Your task to perform on an android device: Open sound settings Image 0: 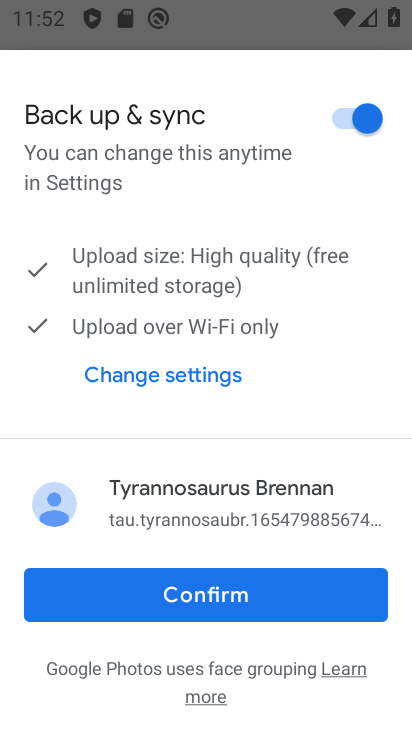
Step 0: press home button
Your task to perform on an android device: Open sound settings Image 1: 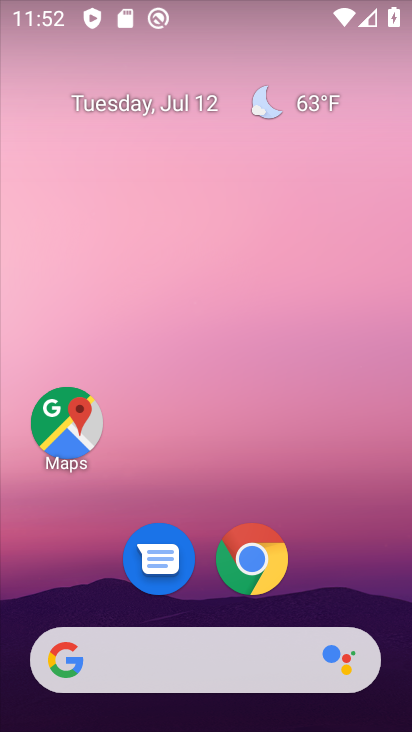
Step 1: drag from (362, 574) to (325, 63)
Your task to perform on an android device: Open sound settings Image 2: 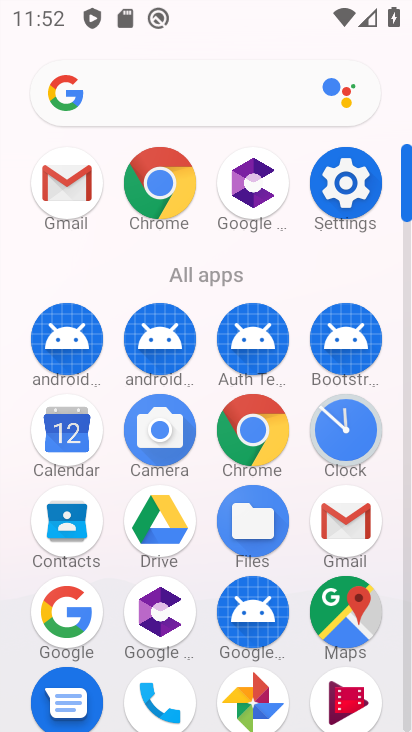
Step 2: drag from (387, 511) to (384, 218)
Your task to perform on an android device: Open sound settings Image 3: 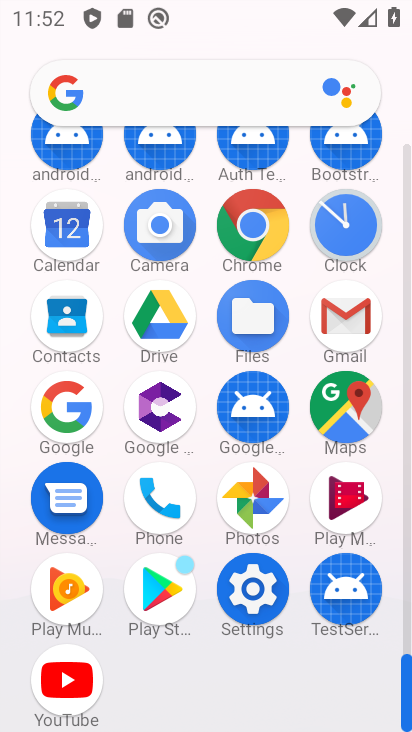
Step 3: click (253, 574)
Your task to perform on an android device: Open sound settings Image 4: 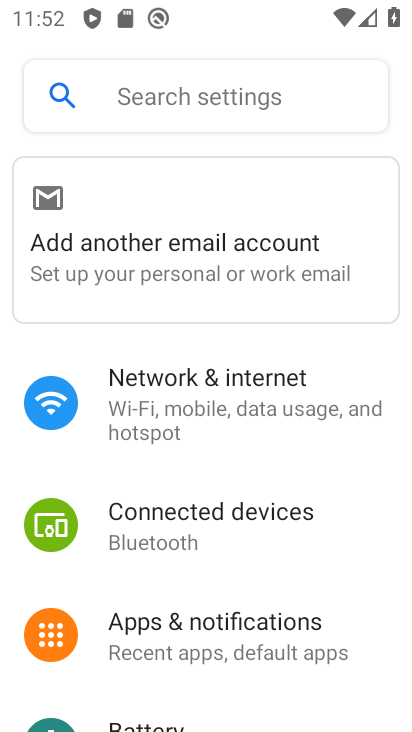
Step 4: drag from (362, 573) to (360, 276)
Your task to perform on an android device: Open sound settings Image 5: 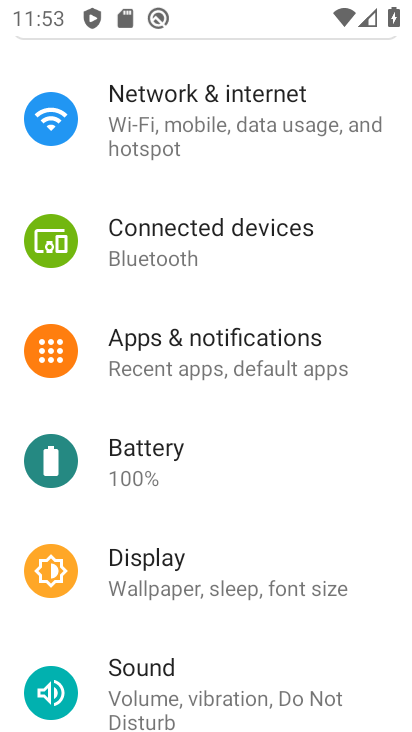
Step 5: drag from (332, 469) to (338, 290)
Your task to perform on an android device: Open sound settings Image 6: 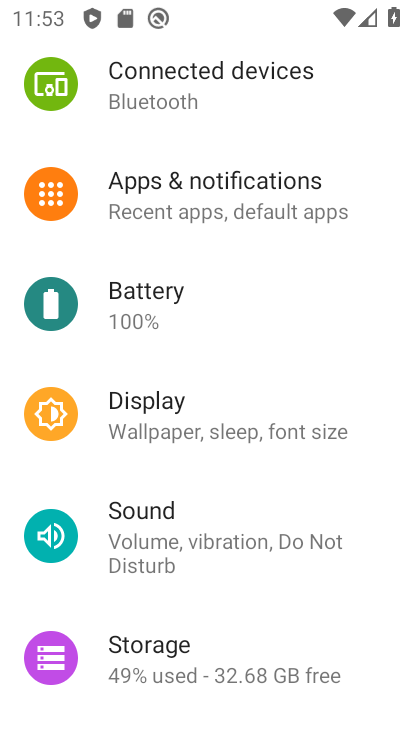
Step 6: drag from (358, 561) to (357, 363)
Your task to perform on an android device: Open sound settings Image 7: 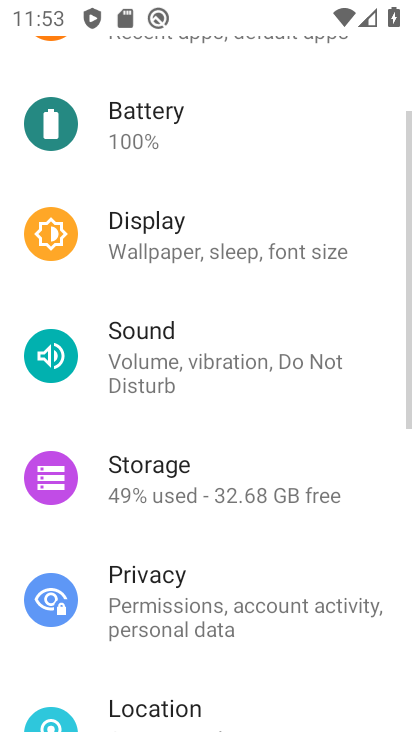
Step 7: drag from (359, 562) to (364, 359)
Your task to perform on an android device: Open sound settings Image 8: 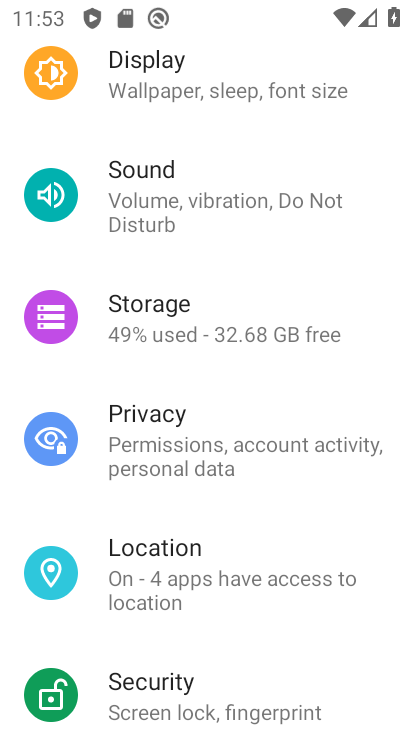
Step 8: drag from (352, 490) to (383, 307)
Your task to perform on an android device: Open sound settings Image 9: 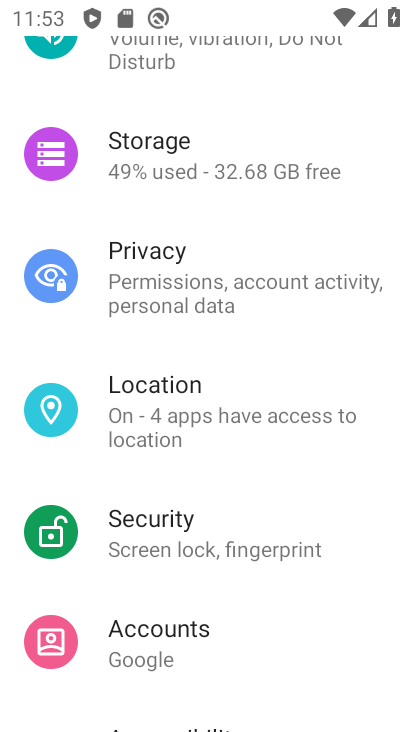
Step 9: drag from (341, 512) to (346, 323)
Your task to perform on an android device: Open sound settings Image 10: 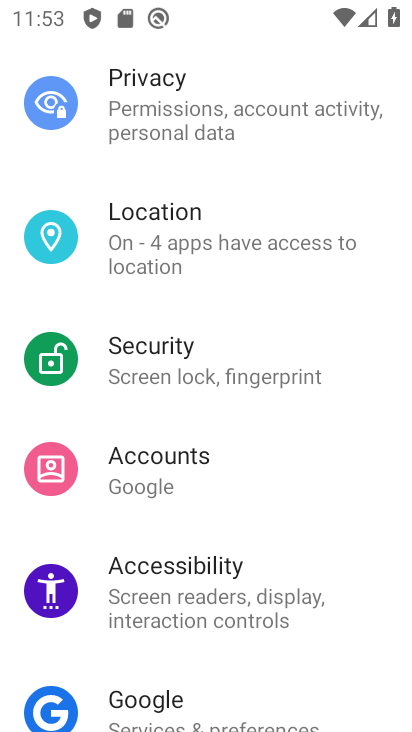
Step 10: drag from (347, 495) to (346, 312)
Your task to perform on an android device: Open sound settings Image 11: 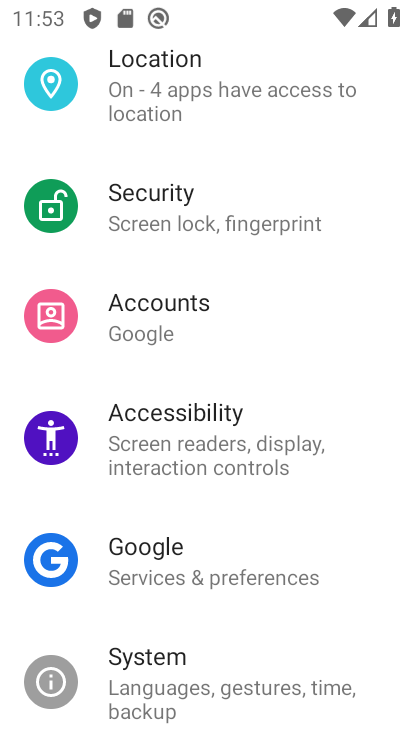
Step 11: drag from (353, 519) to (354, 326)
Your task to perform on an android device: Open sound settings Image 12: 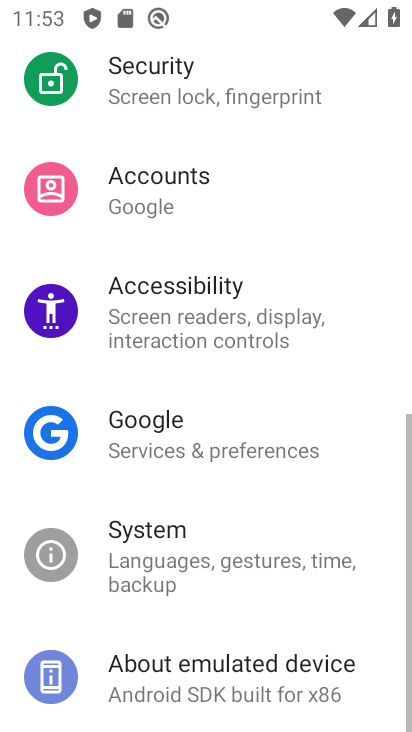
Step 12: drag from (351, 278) to (349, 442)
Your task to perform on an android device: Open sound settings Image 13: 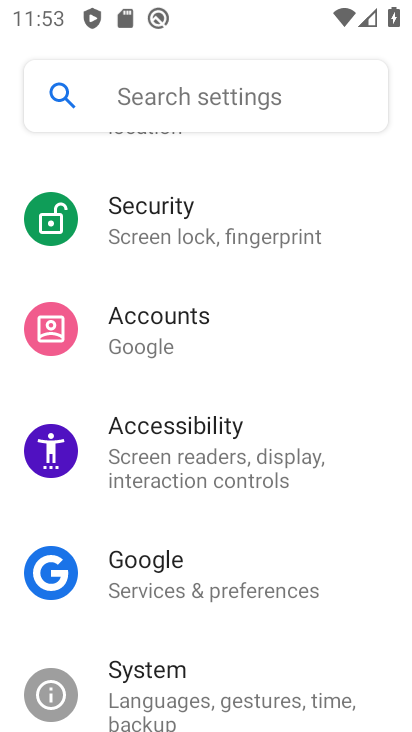
Step 13: drag from (349, 281) to (346, 419)
Your task to perform on an android device: Open sound settings Image 14: 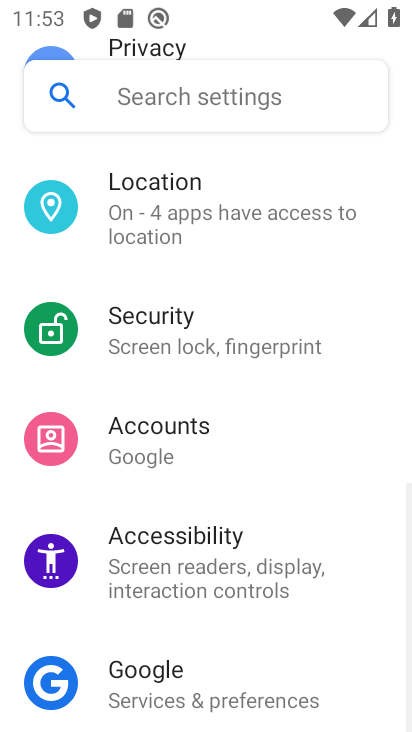
Step 14: drag from (356, 280) to (346, 422)
Your task to perform on an android device: Open sound settings Image 15: 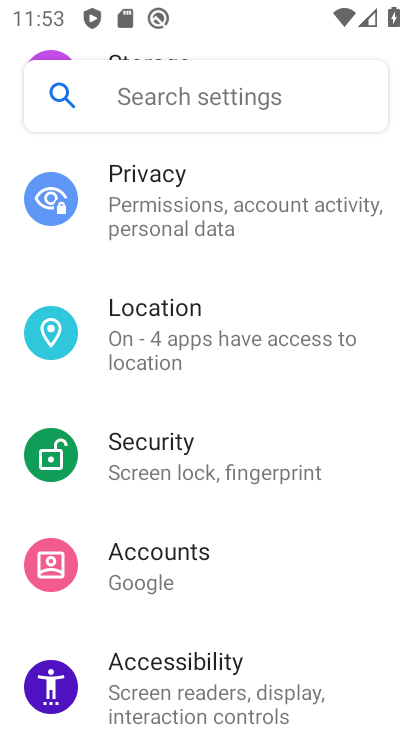
Step 15: drag from (363, 252) to (350, 402)
Your task to perform on an android device: Open sound settings Image 16: 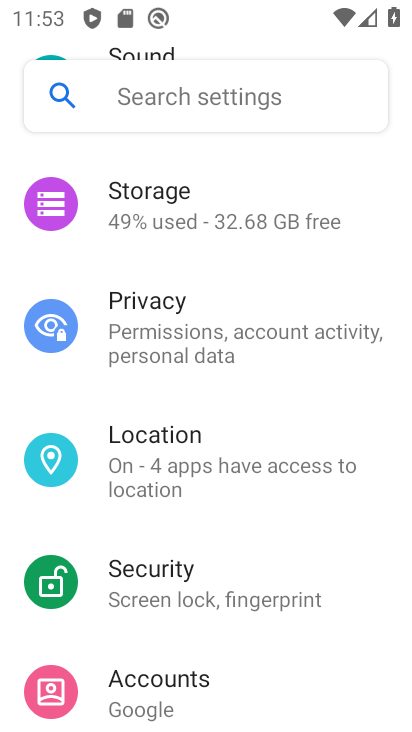
Step 16: drag from (370, 186) to (380, 369)
Your task to perform on an android device: Open sound settings Image 17: 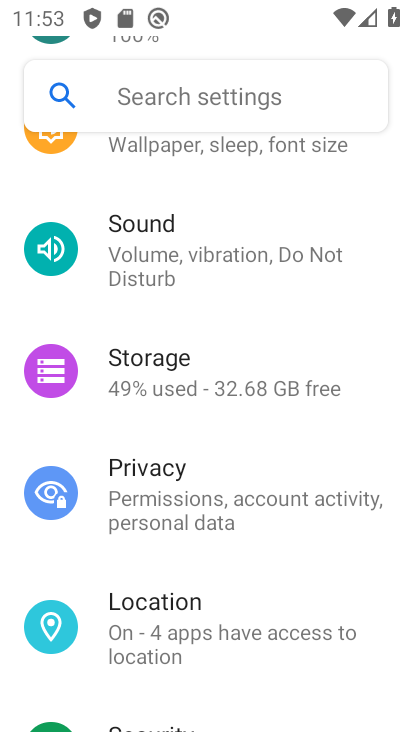
Step 17: drag from (369, 196) to (351, 426)
Your task to perform on an android device: Open sound settings Image 18: 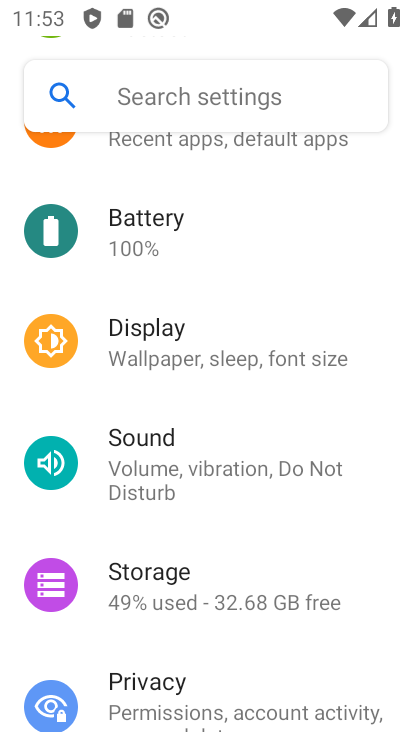
Step 18: click (312, 476)
Your task to perform on an android device: Open sound settings Image 19: 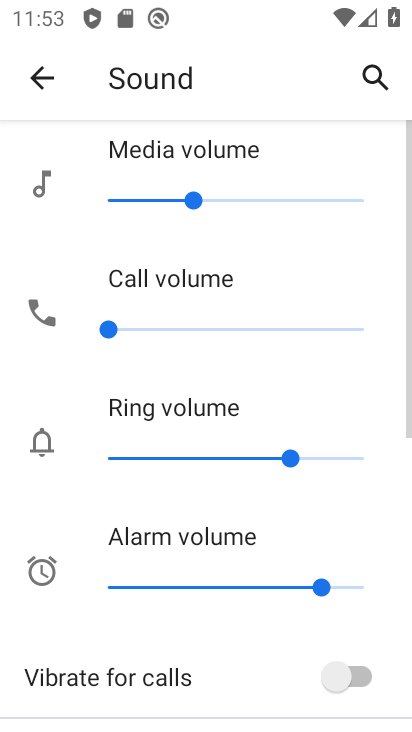
Step 19: task complete